Your task to perform on an android device: change the clock style Image 0: 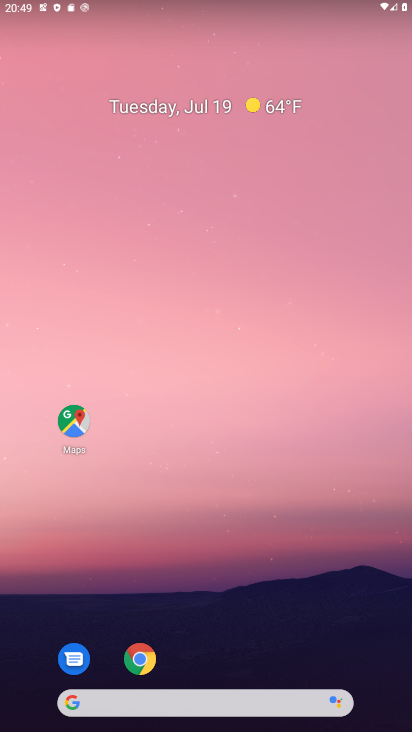
Step 0: drag from (208, 656) to (183, 127)
Your task to perform on an android device: change the clock style Image 1: 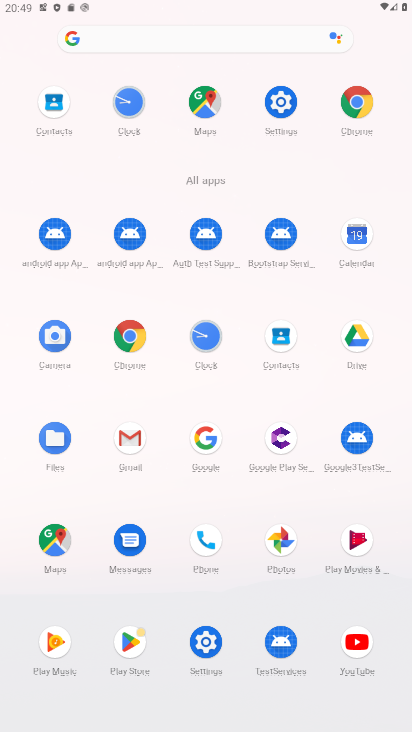
Step 1: click (214, 327)
Your task to perform on an android device: change the clock style Image 2: 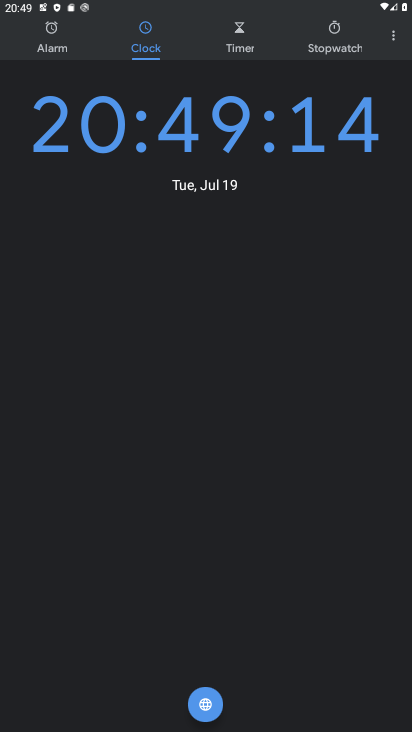
Step 2: click (397, 52)
Your task to perform on an android device: change the clock style Image 3: 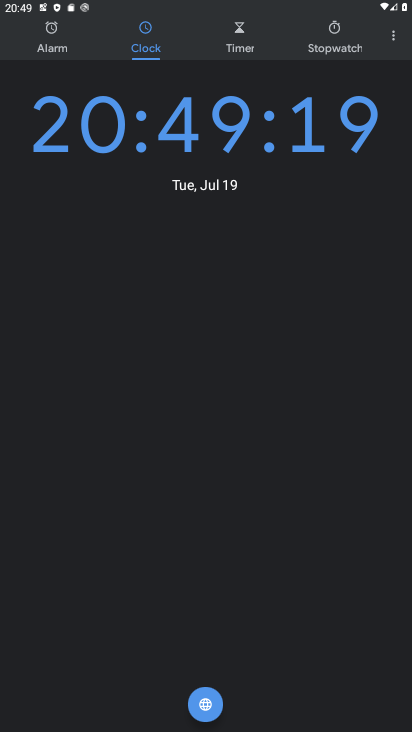
Step 3: click (401, 30)
Your task to perform on an android device: change the clock style Image 4: 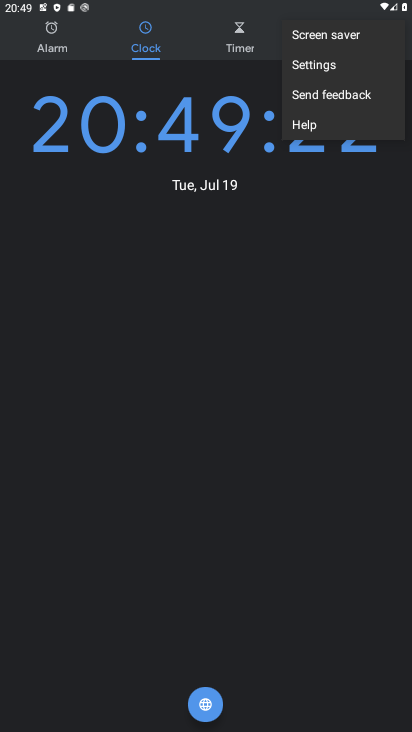
Step 4: click (334, 69)
Your task to perform on an android device: change the clock style Image 5: 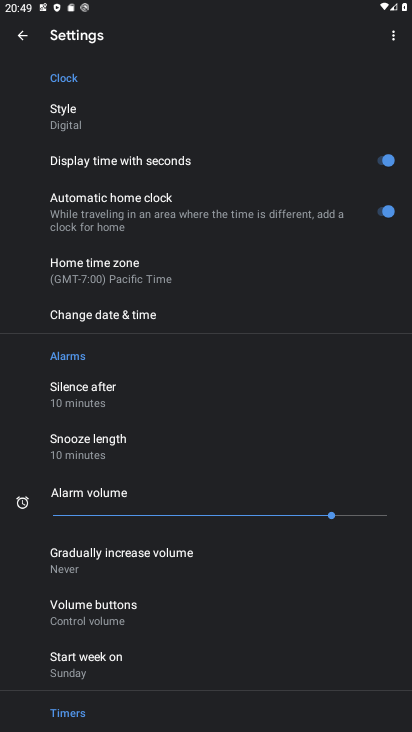
Step 5: click (103, 116)
Your task to perform on an android device: change the clock style Image 6: 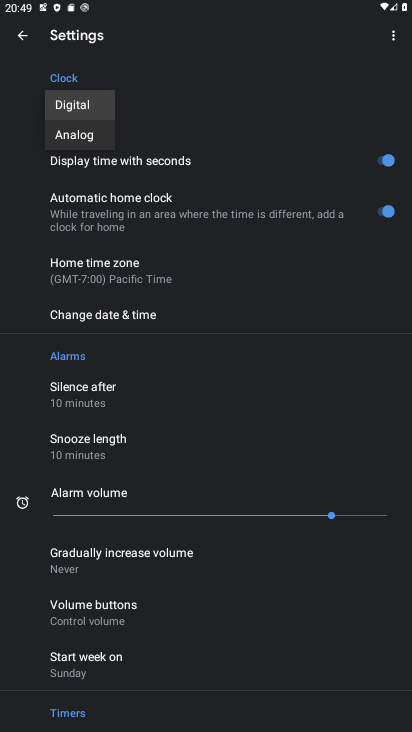
Step 6: click (90, 135)
Your task to perform on an android device: change the clock style Image 7: 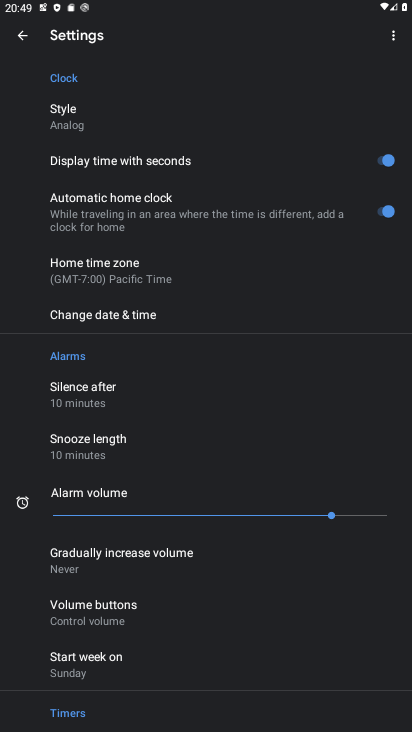
Step 7: task complete